Your task to perform on an android device: Open settings Image 0: 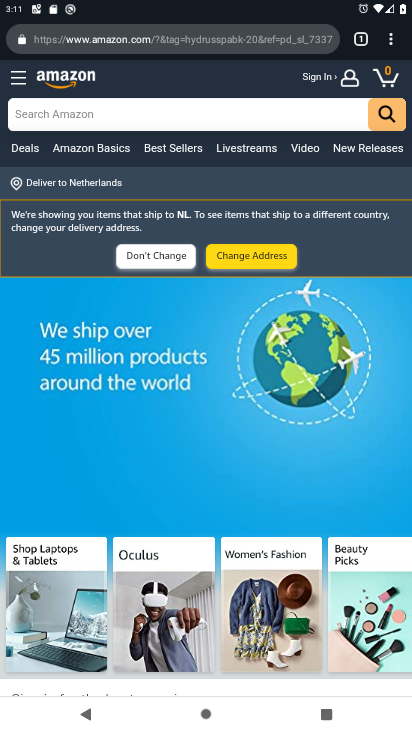
Step 0: press home button
Your task to perform on an android device: Open settings Image 1: 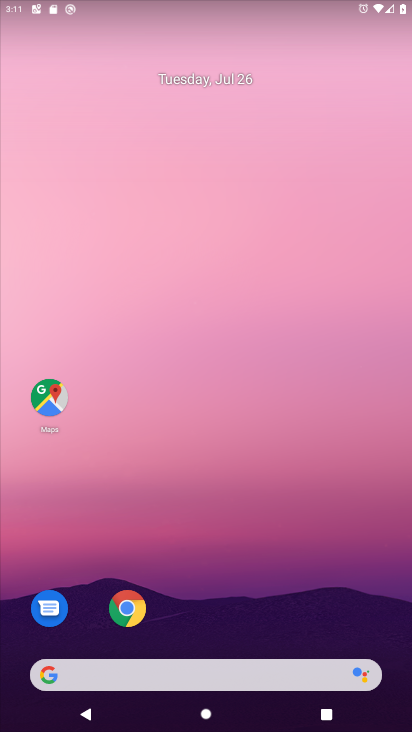
Step 1: drag from (275, 592) to (268, 202)
Your task to perform on an android device: Open settings Image 2: 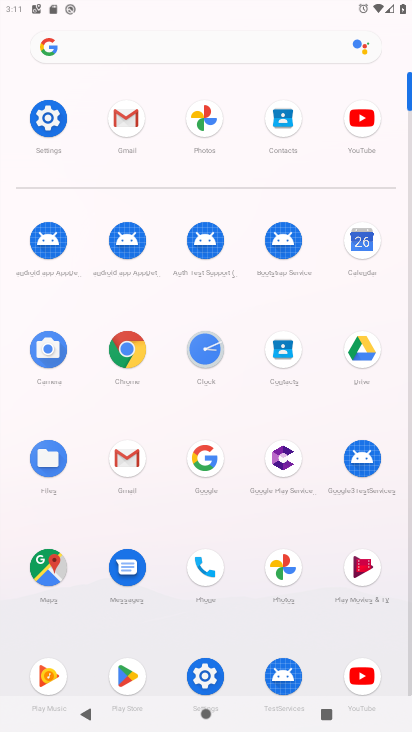
Step 2: click (57, 125)
Your task to perform on an android device: Open settings Image 3: 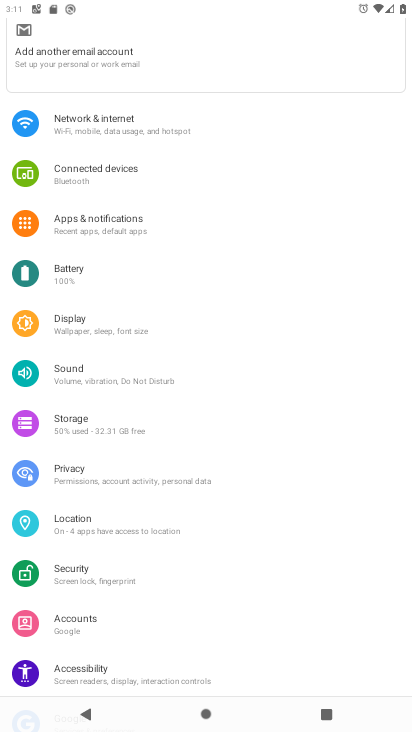
Step 3: task complete